Your task to perform on an android device: open wifi settings Image 0: 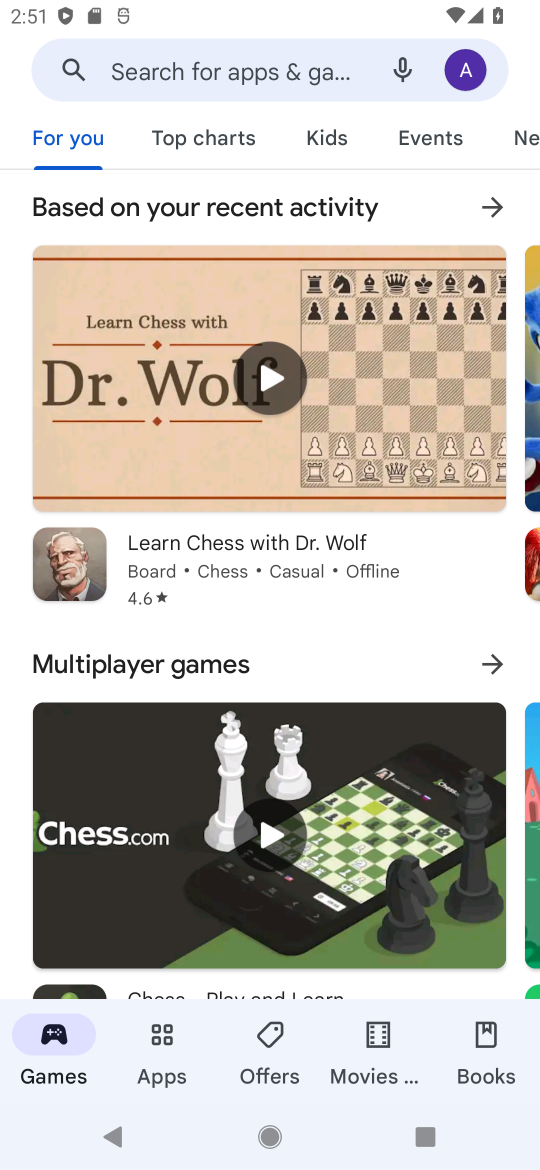
Step 0: press back button
Your task to perform on an android device: open wifi settings Image 1: 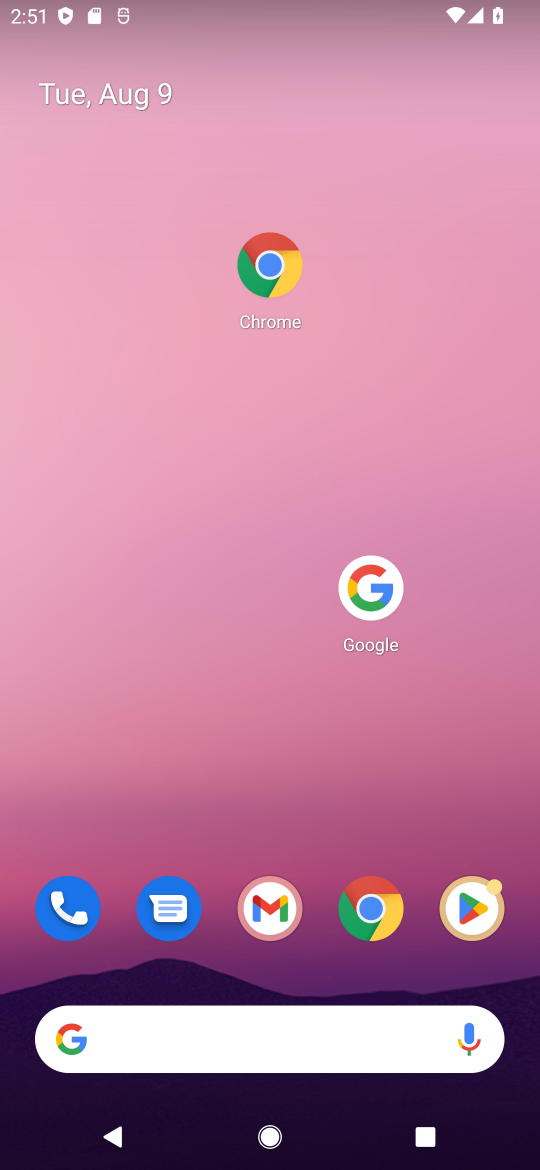
Step 1: drag from (305, 1111) to (216, 302)
Your task to perform on an android device: open wifi settings Image 2: 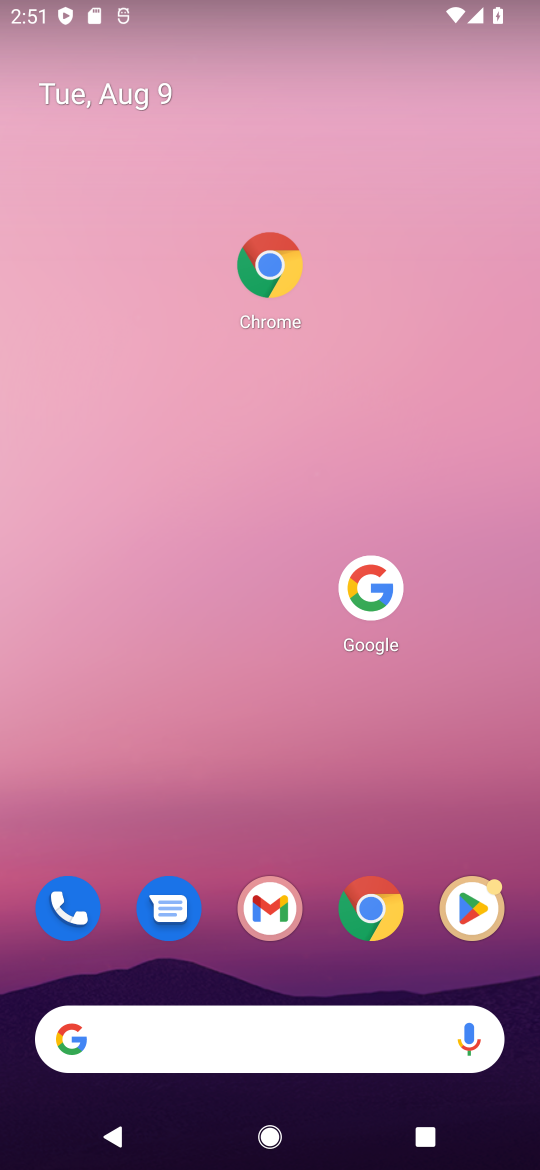
Step 2: drag from (296, 253) to (343, 33)
Your task to perform on an android device: open wifi settings Image 3: 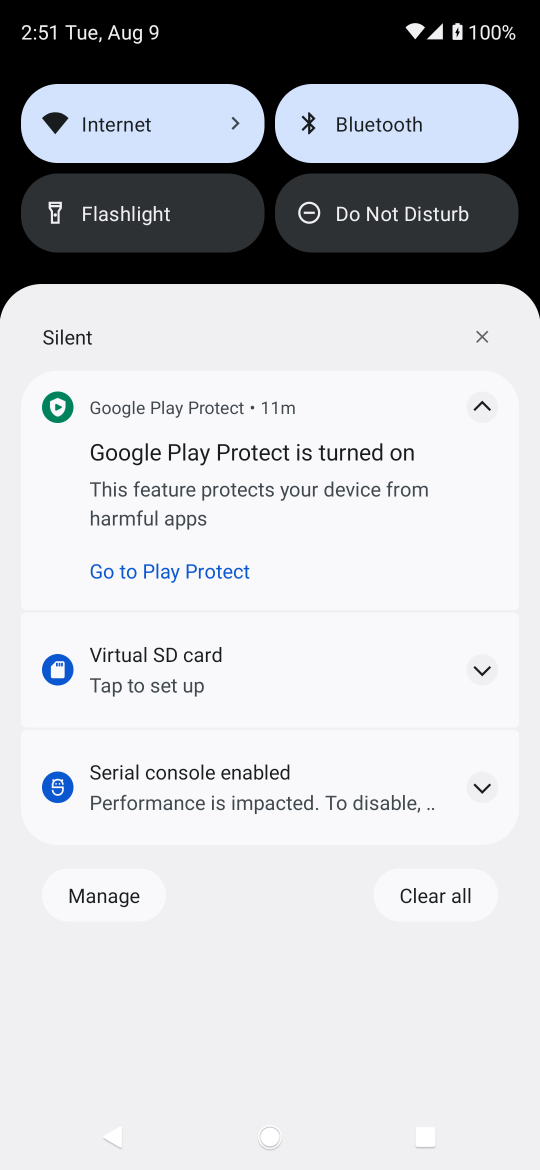
Step 3: drag from (392, 744) to (322, 196)
Your task to perform on an android device: open wifi settings Image 4: 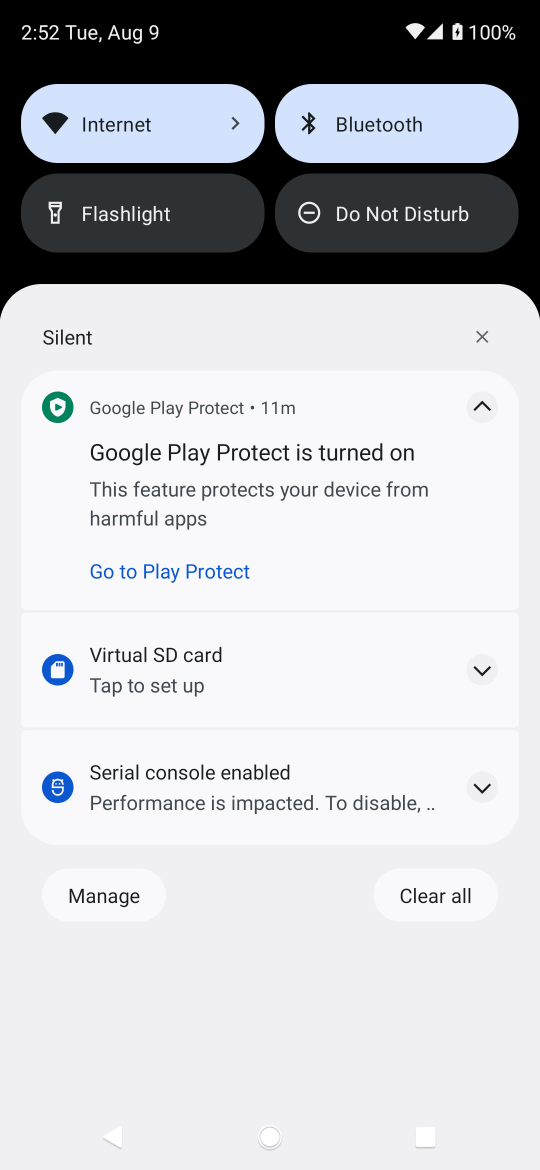
Step 4: press back button
Your task to perform on an android device: open wifi settings Image 5: 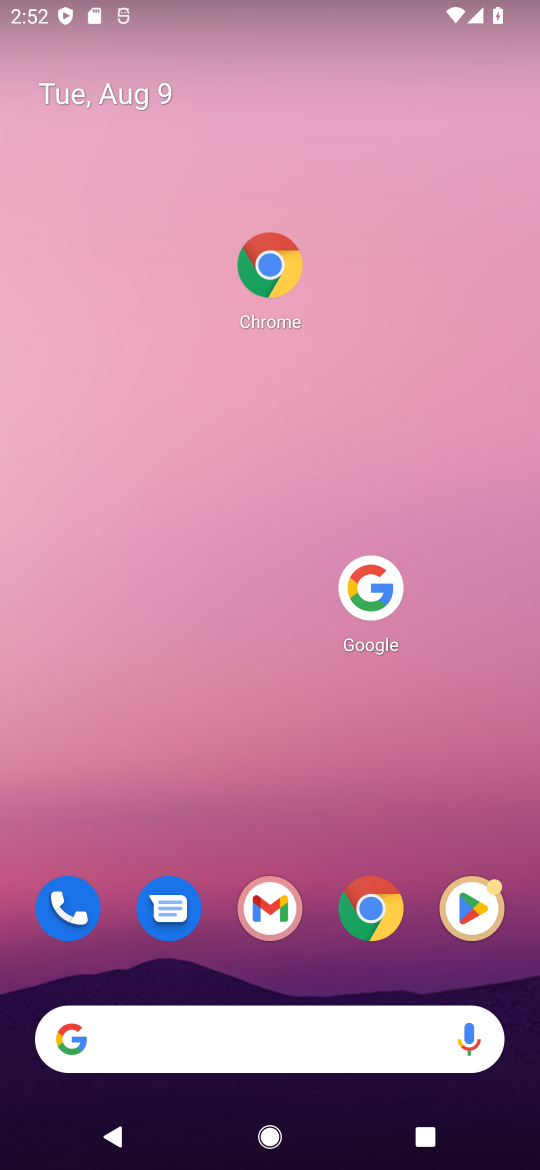
Step 5: drag from (313, 887) to (326, 361)
Your task to perform on an android device: open wifi settings Image 6: 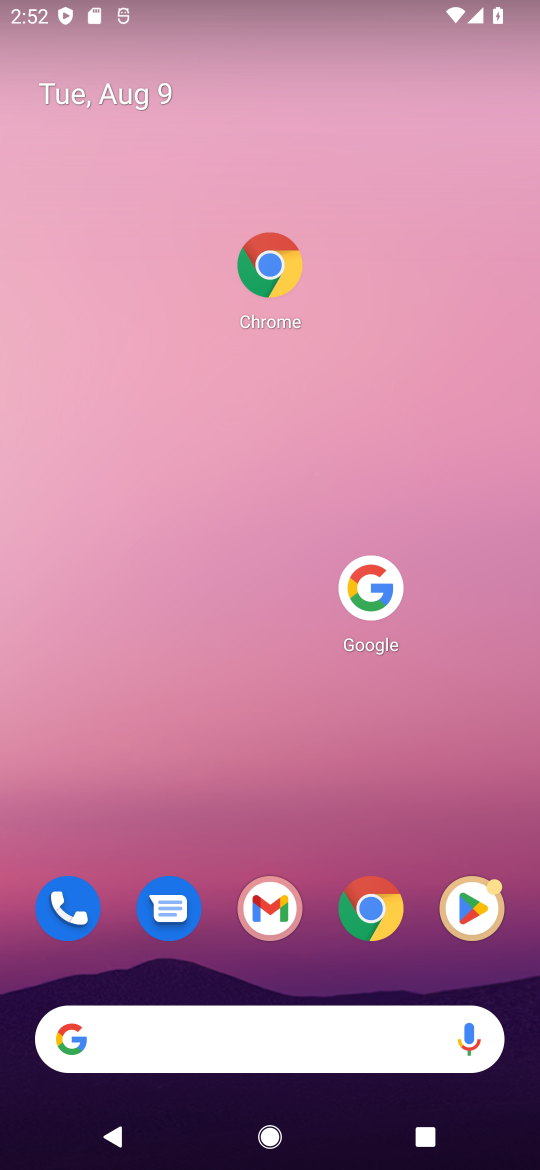
Step 6: click (251, 315)
Your task to perform on an android device: open wifi settings Image 7: 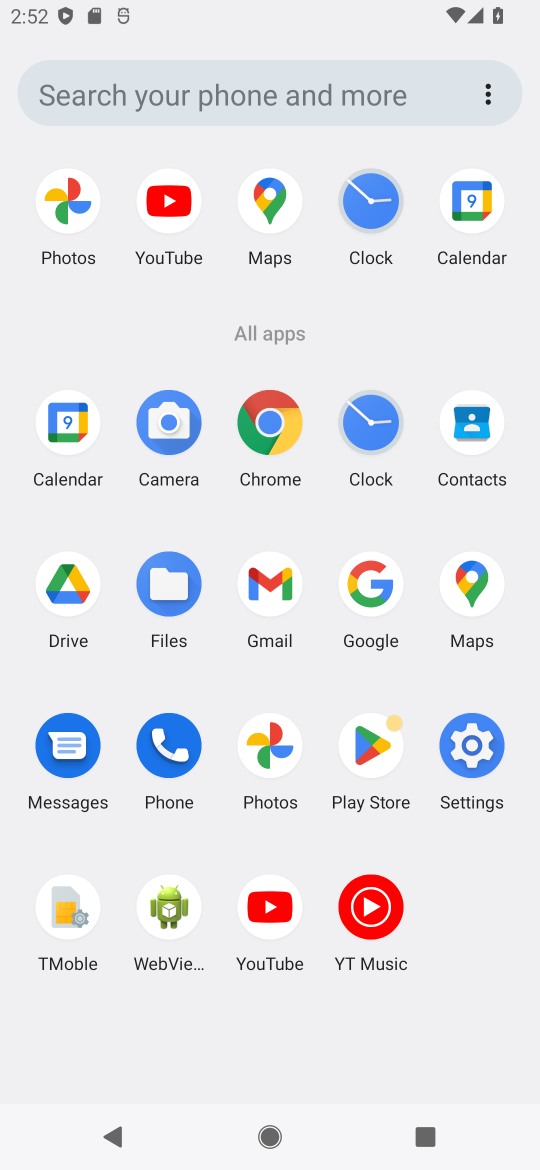
Step 7: click (485, 750)
Your task to perform on an android device: open wifi settings Image 8: 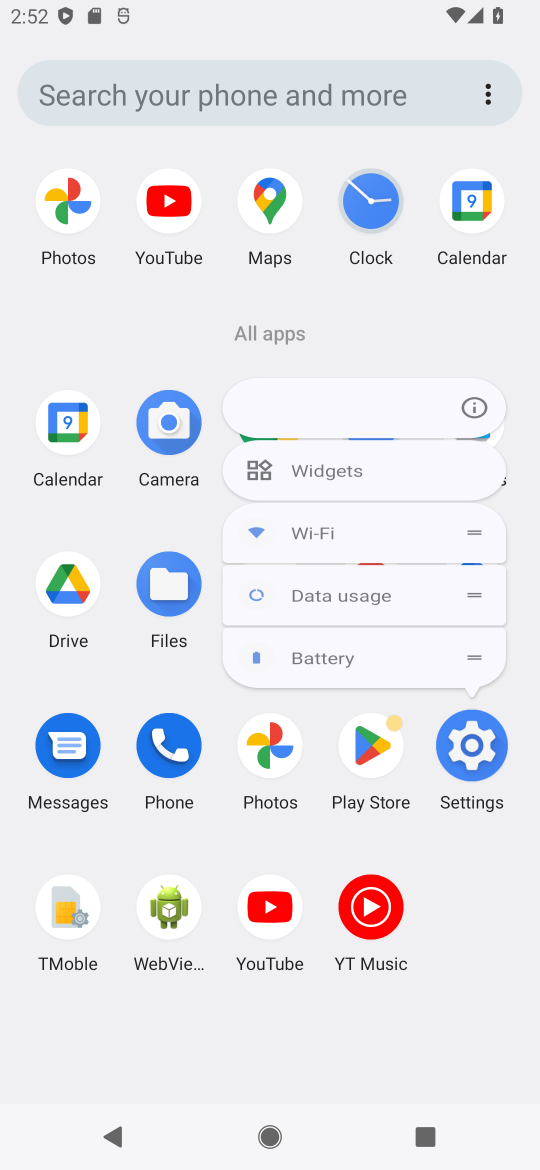
Step 8: click (485, 750)
Your task to perform on an android device: open wifi settings Image 9: 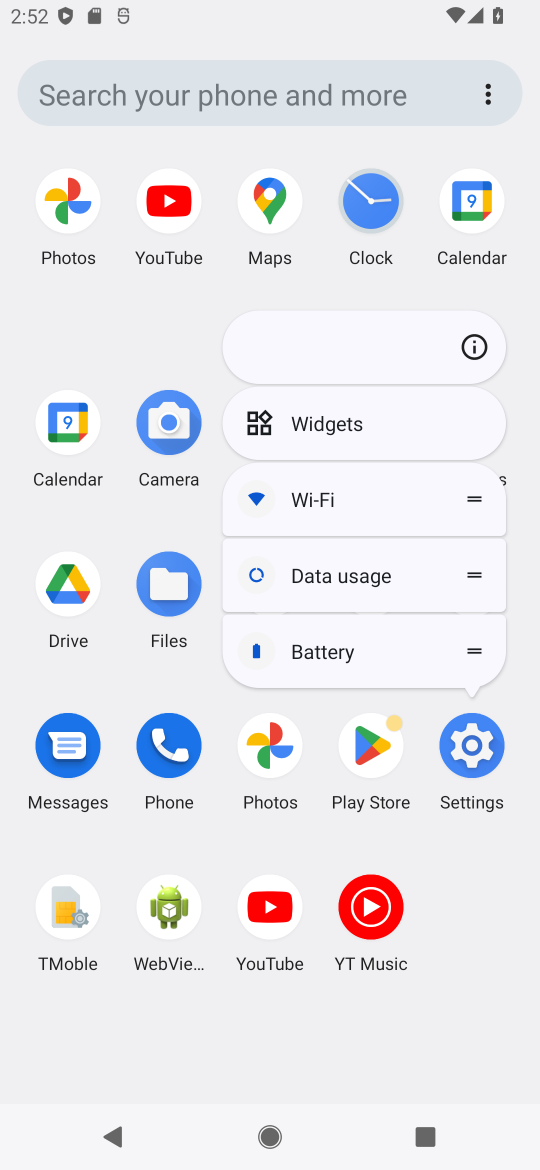
Step 9: click (480, 756)
Your task to perform on an android device: open wifi settings Image 10: 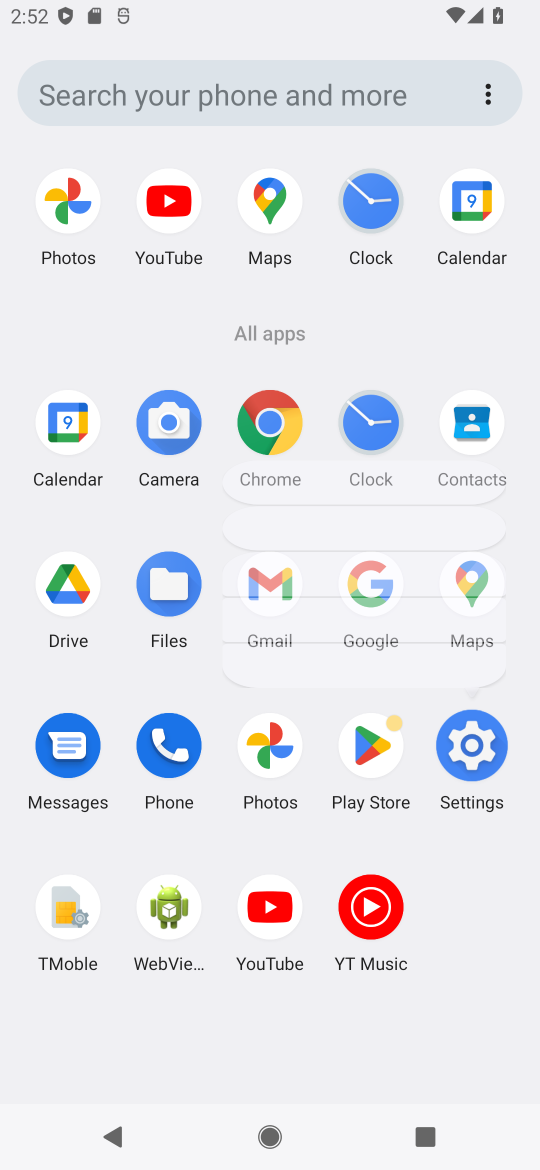
Step 10: click (480, 756)
Your task to perform on an android device: open wifi settings Image 11: 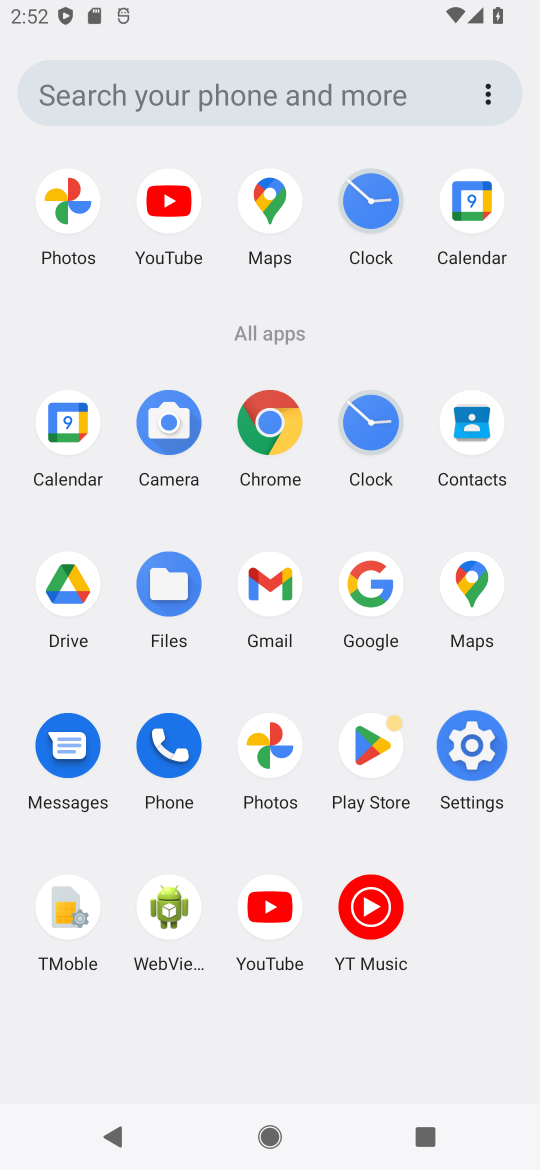
Step 11: click (478, 758)
Your task to perform on an android device: open wifi settings Image 12: 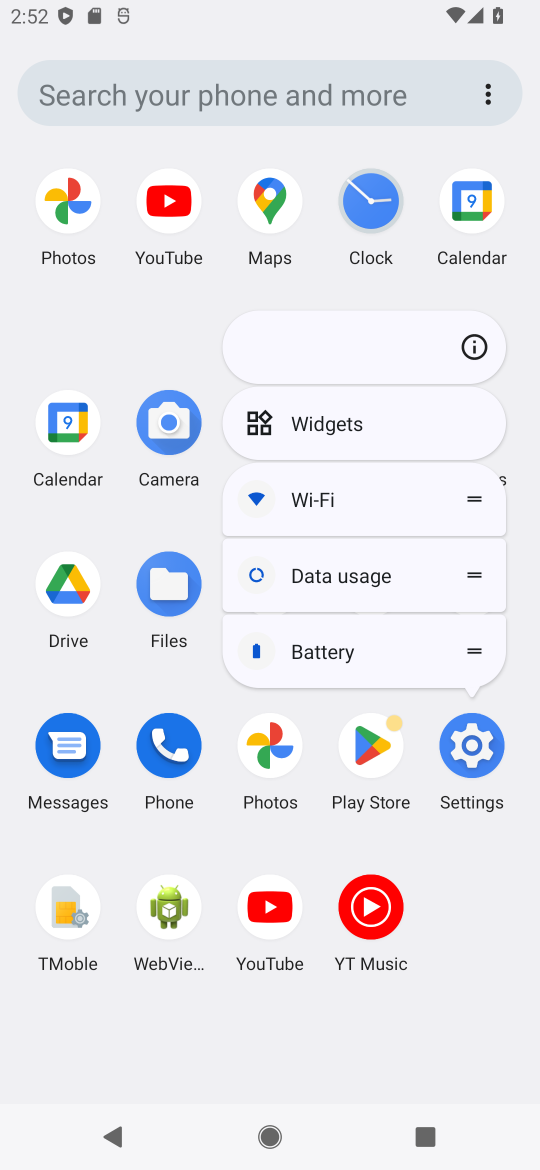
Step 12: click (484, 764)
Your task to perform on an android device: open wifi settings Image 13: 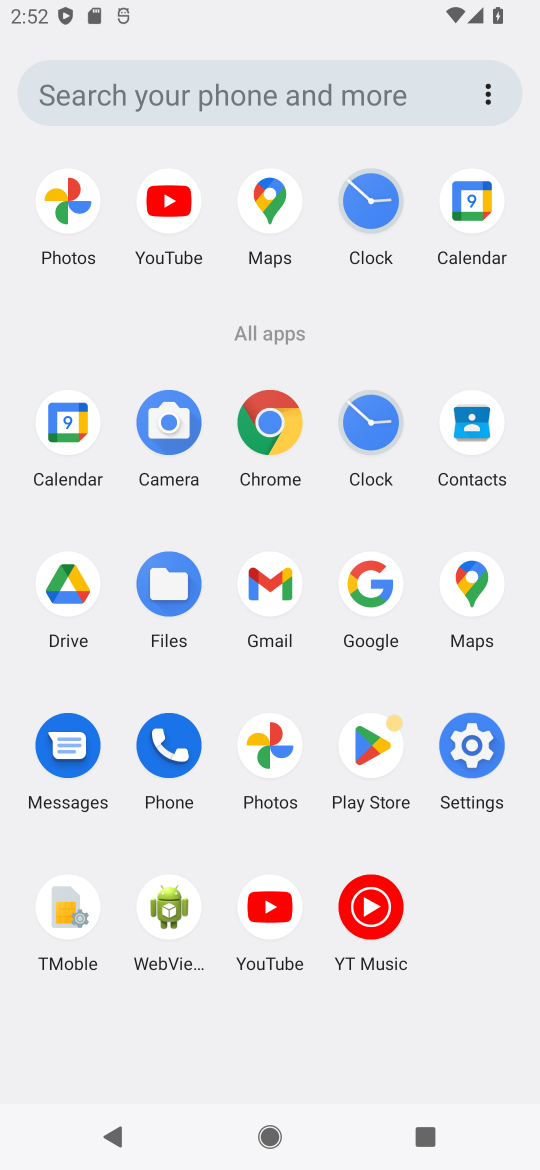
Step 13: click (484, 764)
Your task to perform on an android device: open wifi settings Image 14: 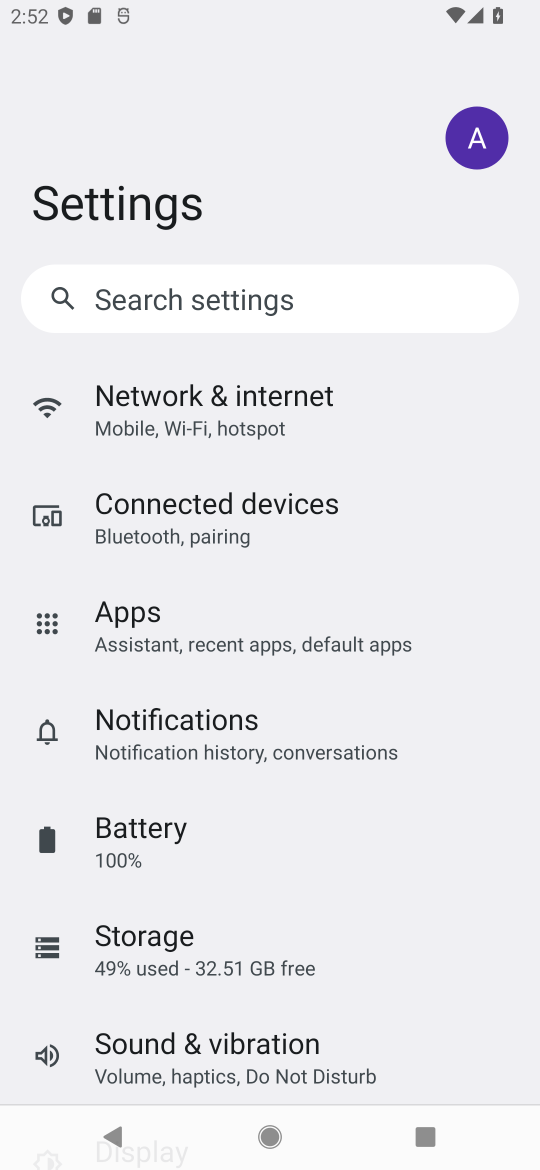
Step 14: click (210, 416)
Your task to perform on an android device: open wifi settings Image 15: 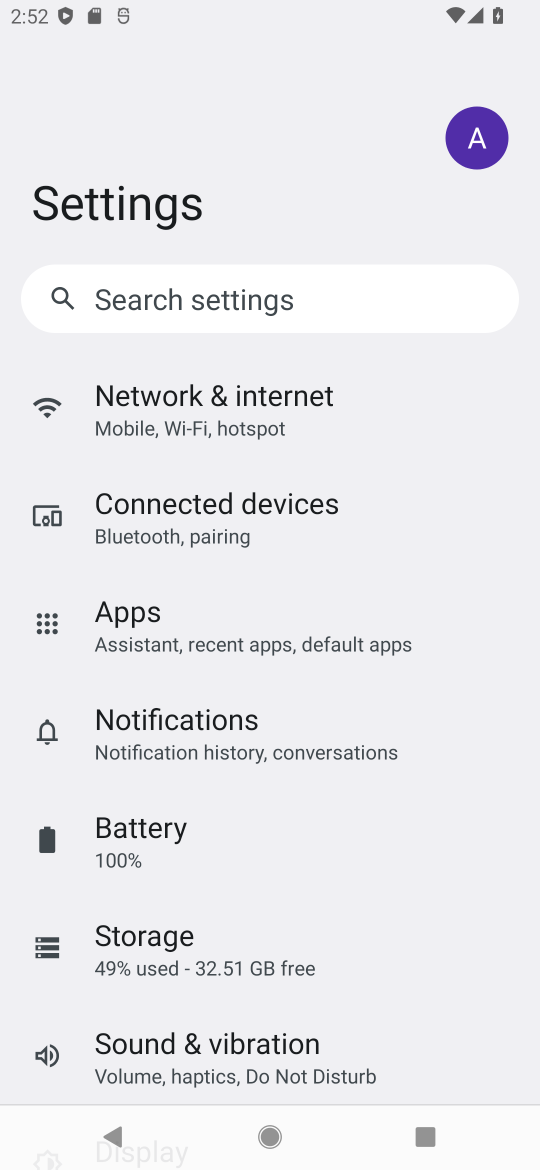
Step 15: click (210, 416)
Your task to perform on an android device: open wifi settings Image 16: 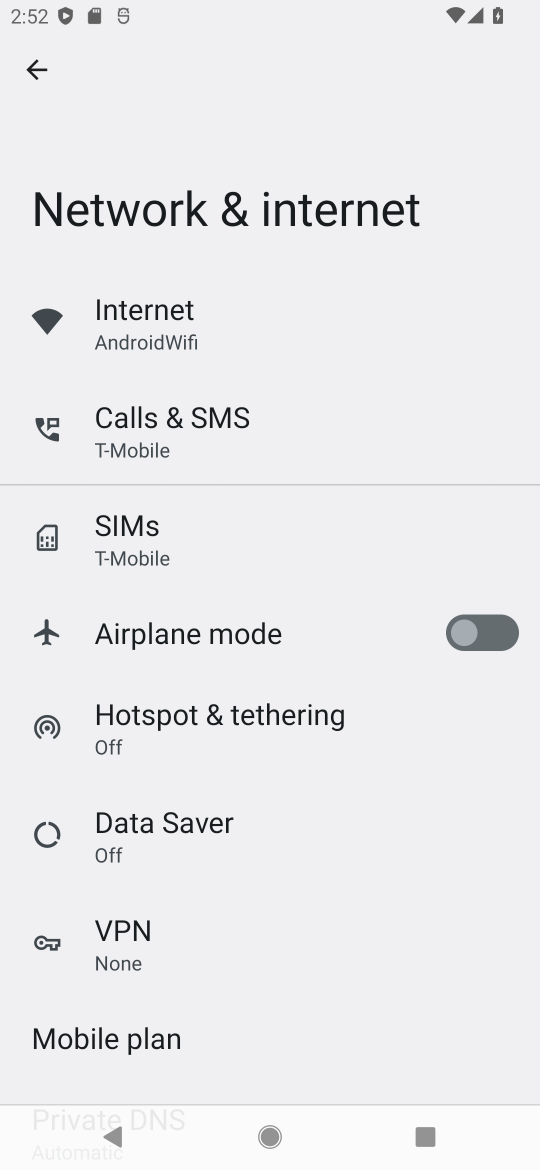
Step 16: click (140, 341)
Your task to perform on an android device: open wifi settings Image 17: 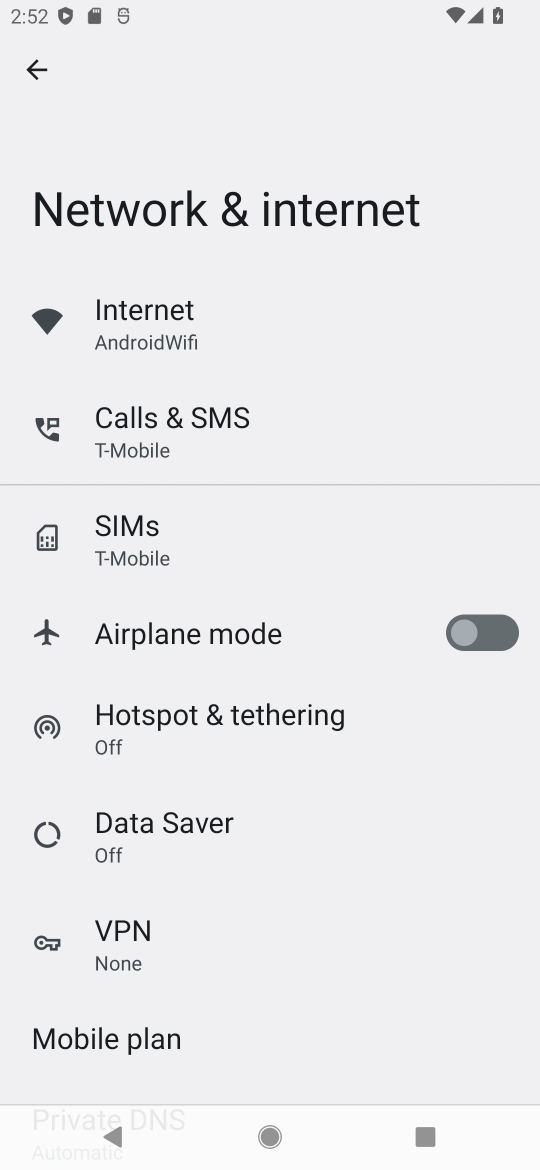
Step 17: click (140, 341)
Your task to perform on an android device: open wifi settings Image 18: 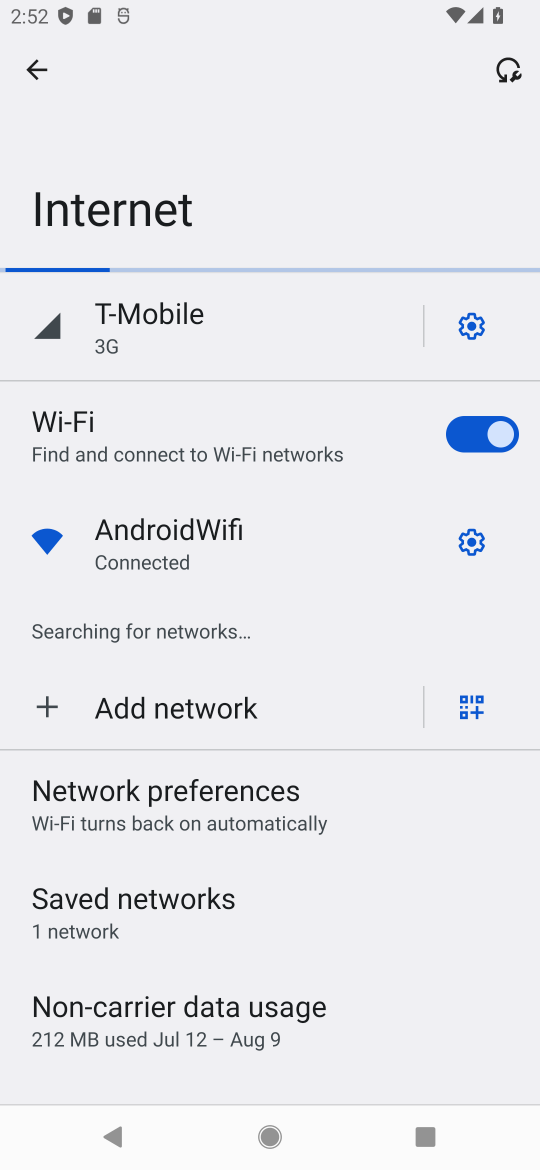
Step 18: task complete